Your task to perform on an android device: turn off wifi Image 0: 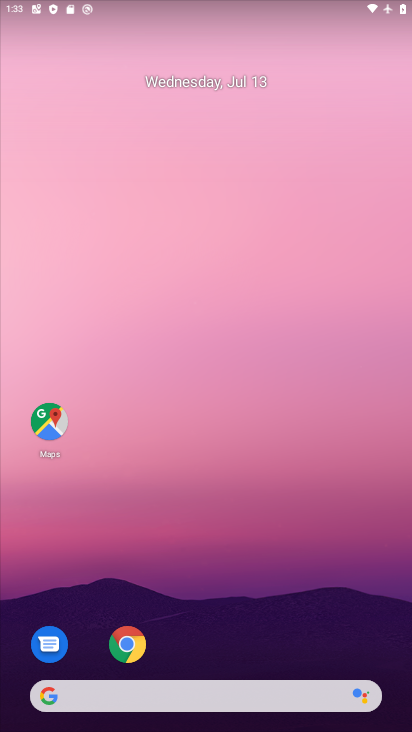
Step 0: drag from (288, 566) to (221, 57)
Your task to perform on an android device: turn off wifi Image 1: 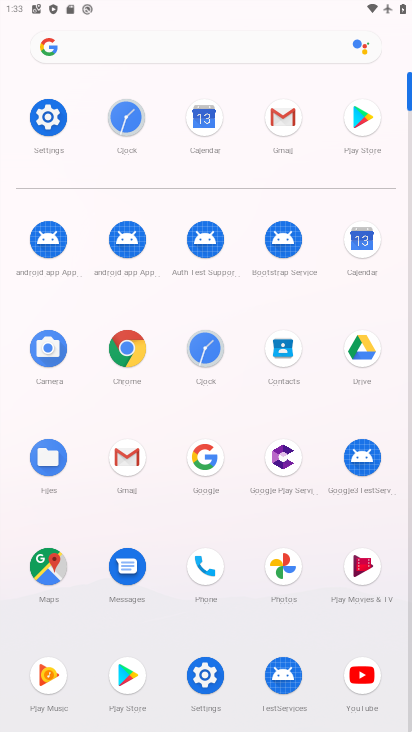
Step 1: click (54, 114)
Your task to perform on an android device: turn off wifi Image 2: 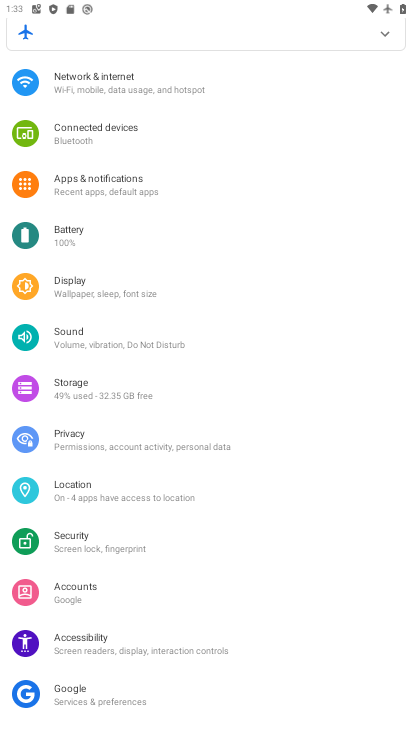
Step 2: click (130, 92)
Your task to perform on an android device: turn off wifi Image 3: 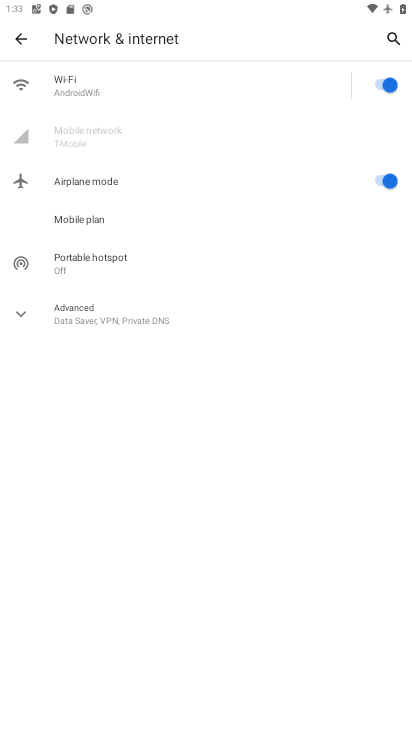
Step 3: click (392, 80)
Your task to perform on an android device: turn off wifi Image 4: 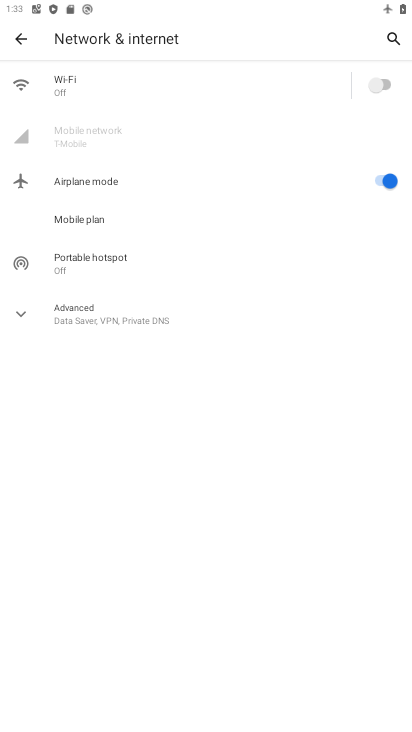
Step 4: task complete